Your task to perform on an android device: Go to network settings Image 0: 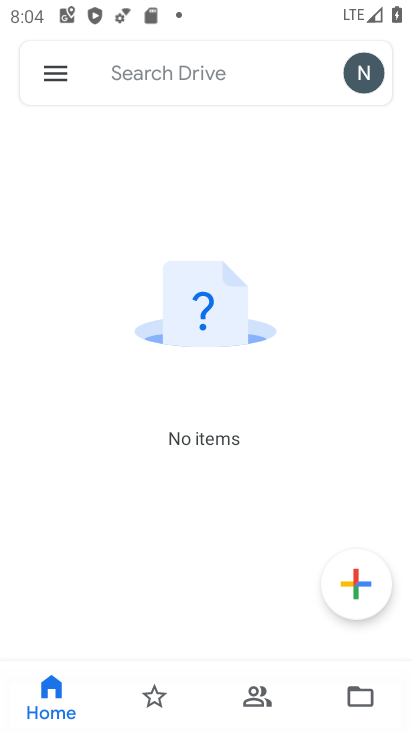
Step 0: press home button
Your task to perform on an android device: Go to network settings Image 1: 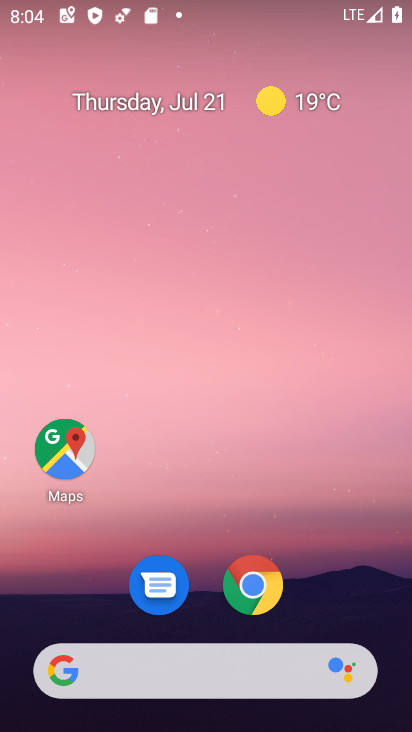
Step 1: drag from (336, 597) to (323, 48)
Your task to perform on an android device: Go to network settings Image 2: 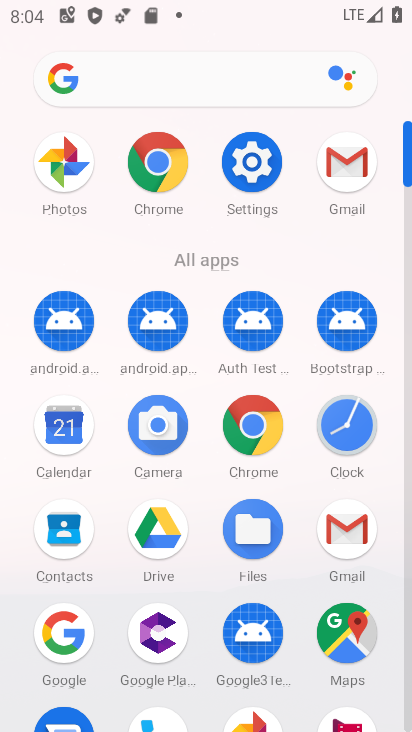
Step 2: click (247, 172)
Your task to perform on an android device: Go to network settings Image 3: 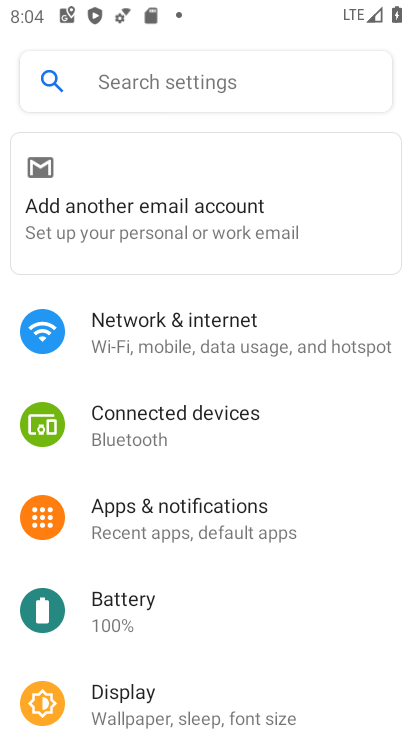
Step 3: click (240, 334)
Your task to perform on an android device: Go to network settings Image 4: 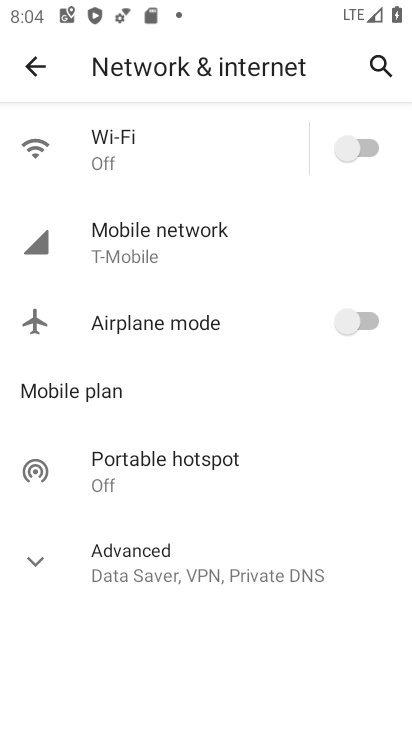
Step 4: task complete